Your task to perform on an android device: open app "Reddit" (install if not already installed) Image 0: 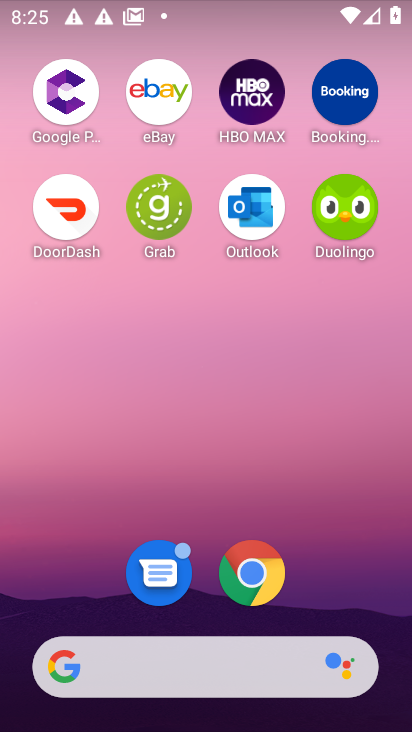
Step 0: drag from (173, 624) to (378, 55)
Your task to perform on an android device: open app "Reddit" (install if not already installed) Image 1: 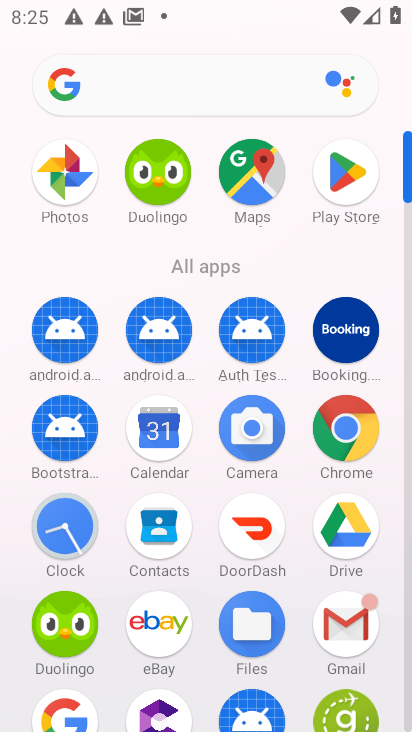
Step 1: click (348, 173)
Your task to perform on an android device: open app "Reddit" (install if not already installed) Image 2: 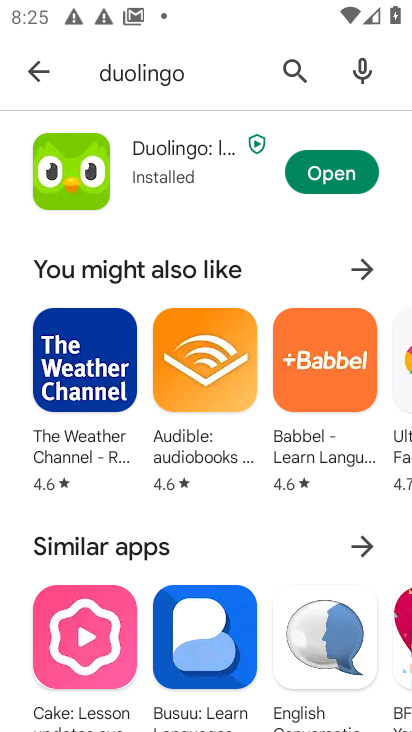
Step 2: click (169, 91)
Your task to perform on an android device: open app "Reddit" (install if not already installed) Image 3: 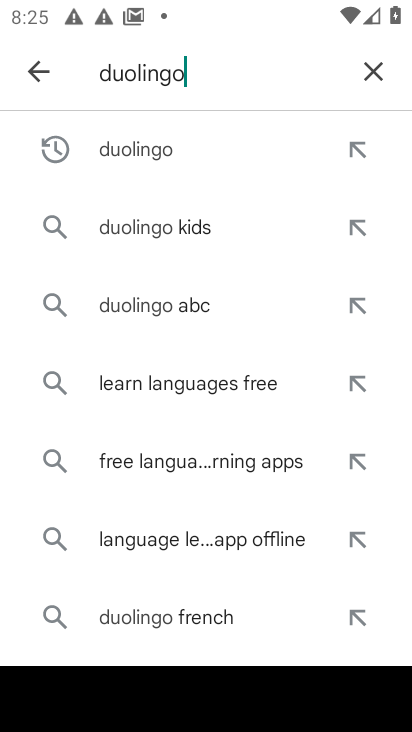
Step 3: click (375, 64)
Your task to perform on an android device: open app "Reddit" (install if not already installed) Image 4: 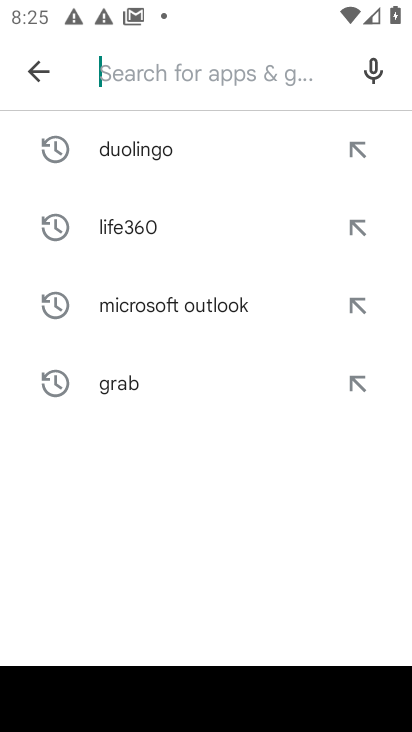
Step 4: type "reddit"
Your task to perform on an android device: open app "Reddit" (install if not already installed) Image 5: 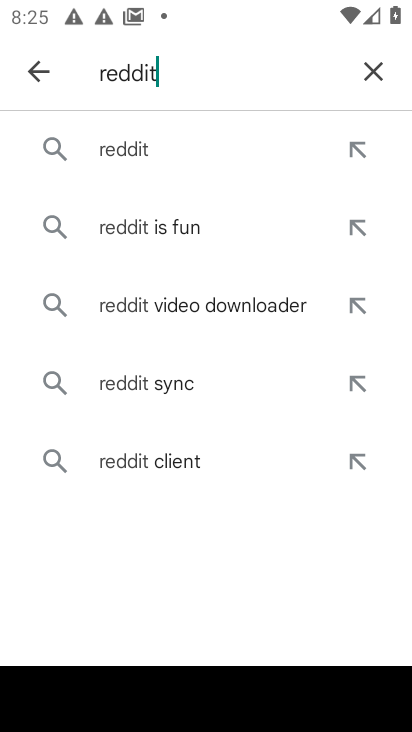
Step 5: click (119, 150)
Your task to perform on an android device: open app "Reddit" (install if not already installed) Image 6: 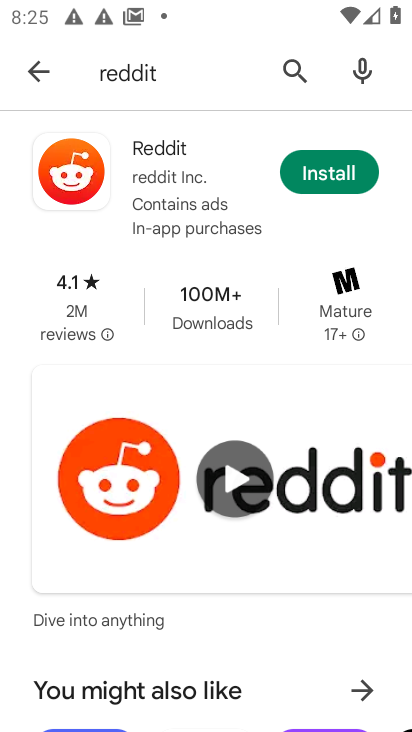
Step 6: click (344, 176)
Your task to perform on an android device: open app "Reddit" (install if not already installed) Image 7: 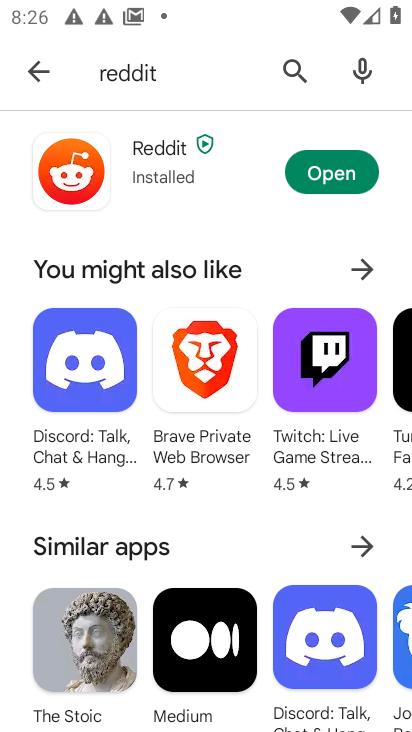
Step 7: click (334, 181)
Your task to perform on an android device: open app "Reddit" (install if not already installed) Image 8: 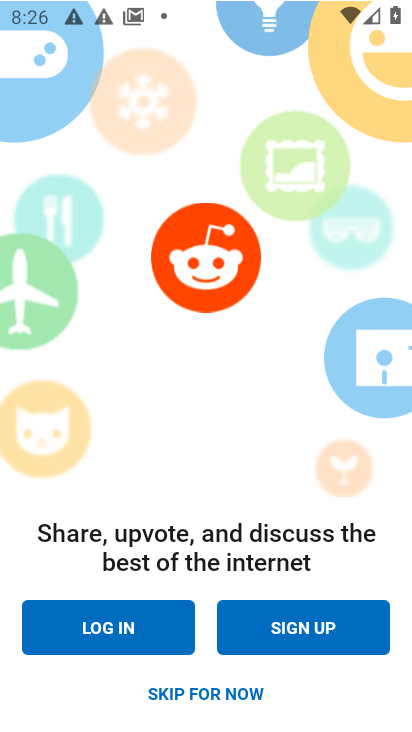
Step 8: click (198, 697)
Your task to perform on an android device: open app "Reddit" (install if not already installed) Image 9: 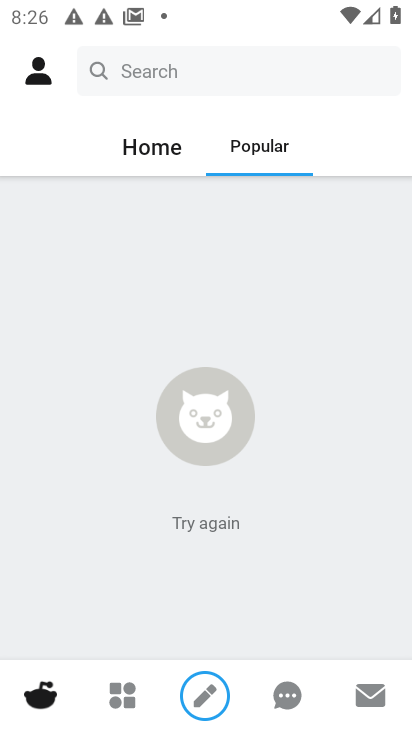
Step 9: task complete